Your task to perform on an android device: turn on improve location accuracy Image 0: 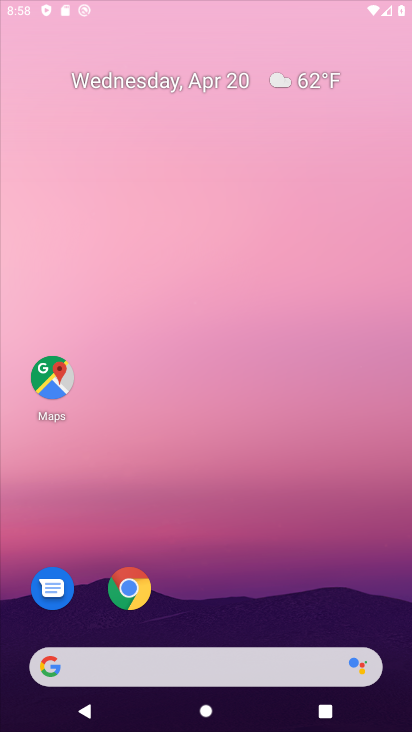
Step 0: drag from (216, 583) to (213, 20)
Your task to perform on an android device: turn on improve location accuracy Image 1: 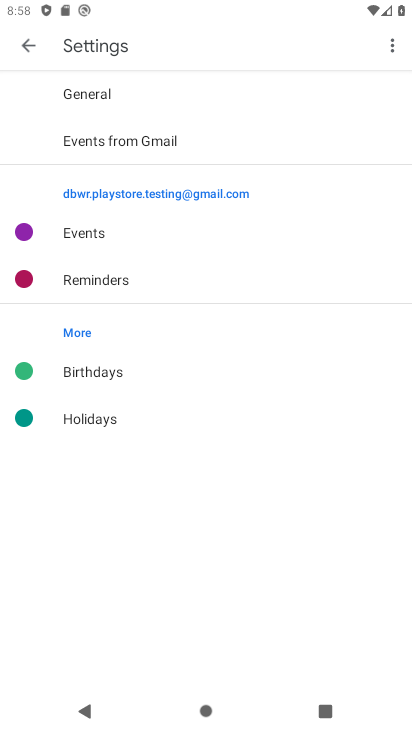
Step 1: press home button
Your task to perform on an android device: turn on improve location accuracy Image 2: 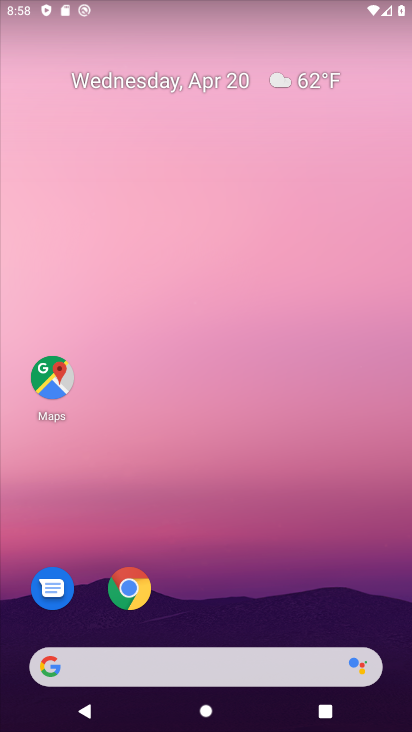
Step 2: drag from (238, 621) to (251, 0)
Your task to perform on an android device: turn on improve location accuracy Image 3: 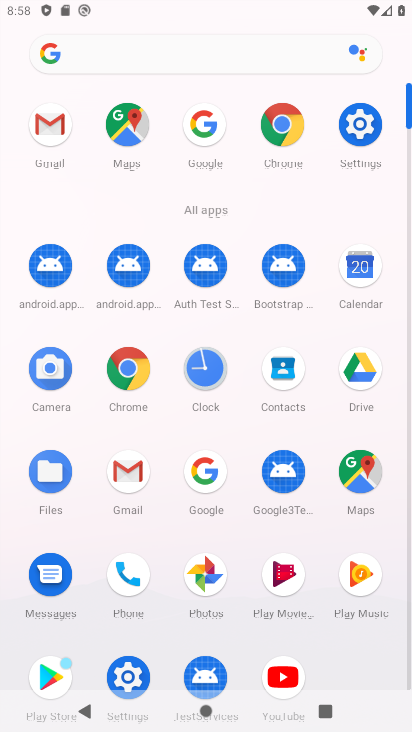
Step 3: click (131, 669)
Your task to perform on an android device: turn on improve location accuracy Image 4: 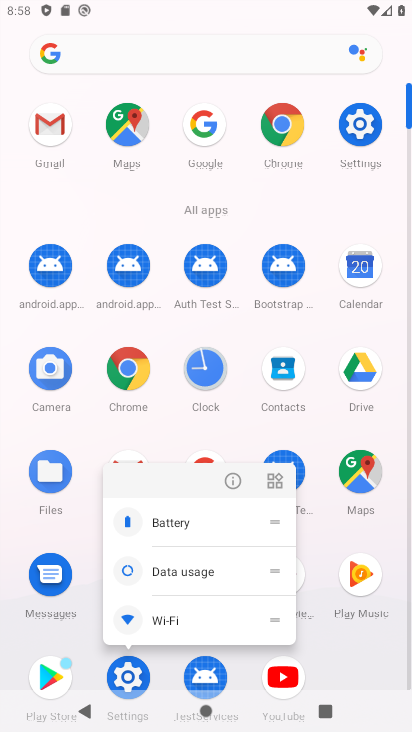
Step 4: click (123, 668)
Your task to perform on an android device: turn on improve location accuracy Image 5: 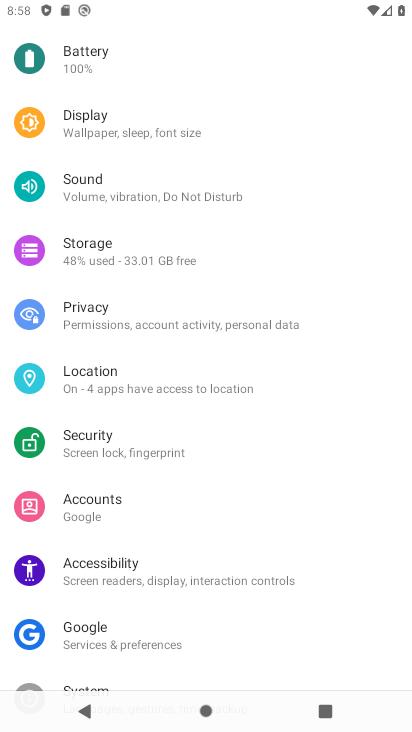
Step 5: click (128, 370)
Your task to perform on an android device: turn on improve location accuracy Image 6: 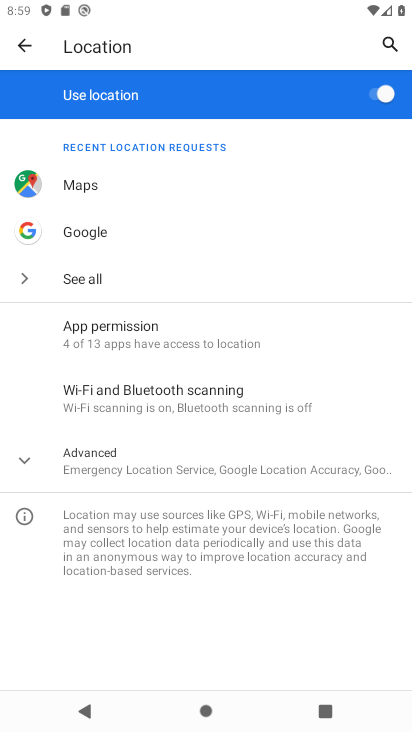
Step 6: click (24, 460)
Your task to perform on an android device: turn on improve location accuracy Image 7: 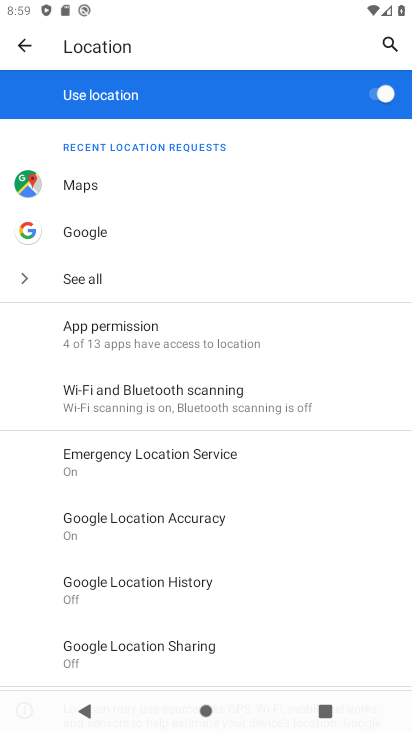
Step 7: click (44, 520)
Your task to perform on an android device: turn on improve location accuracy Image 8: 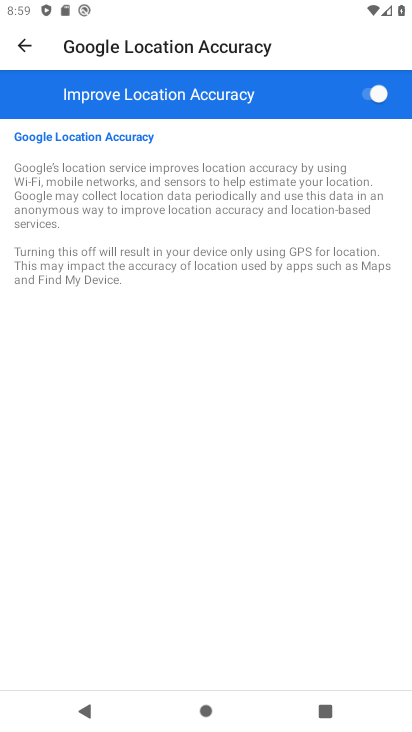
Step 8: task complete